Your task to perform on an android device: turn on airplane mode Image 0: 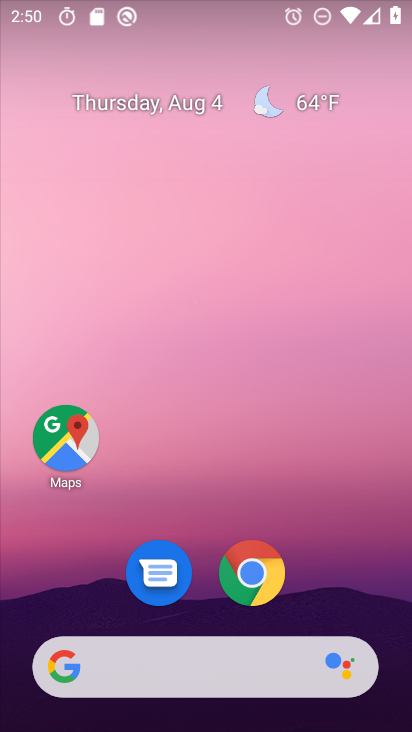
Step 0: drag from (272, 0) to (230, 425)
Your task to perform on an android device: turn on airplane mode Image 1: 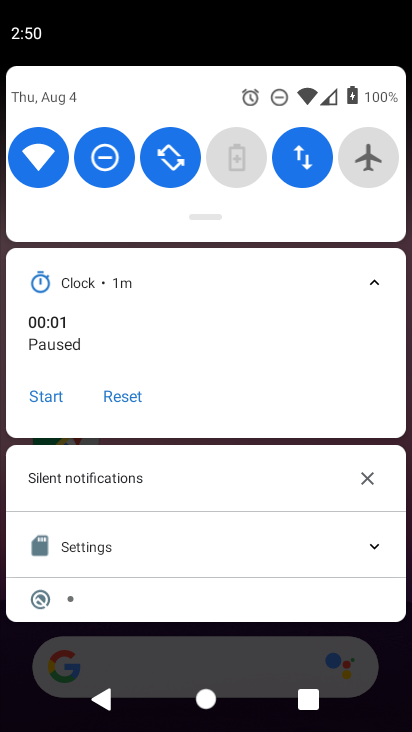
Step 1: click (364, 157)
Your task to perform on an android device: turn on airplane mode Image 2: 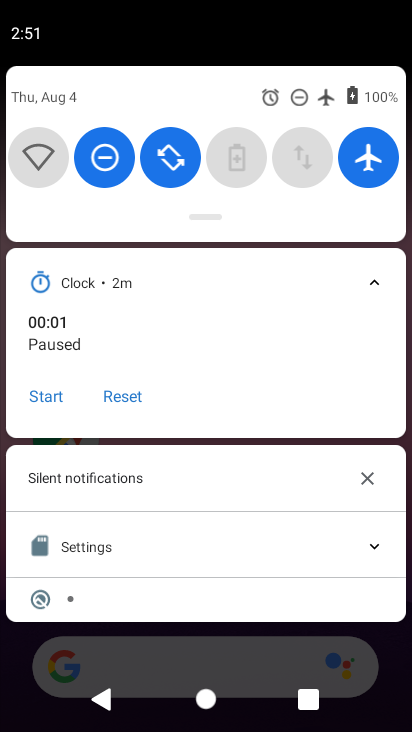
Step 2: task complete